Your task to perform on an android device: Open the calendar and show me this week's events? Image 0: 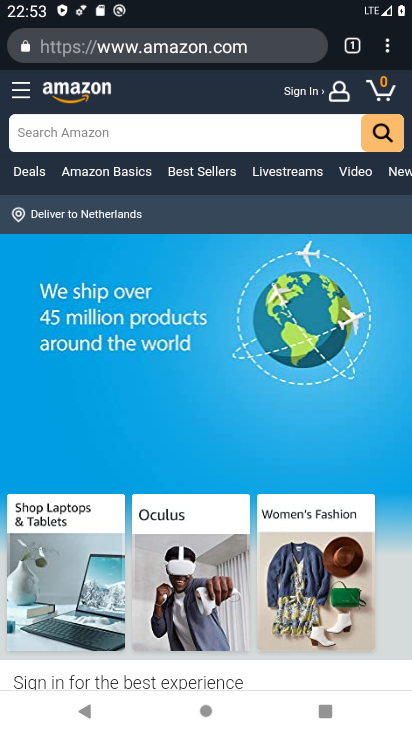
Step 0: press home button
Your task to perform on an android device: Open the calendar and show me this week's events? Image 1: 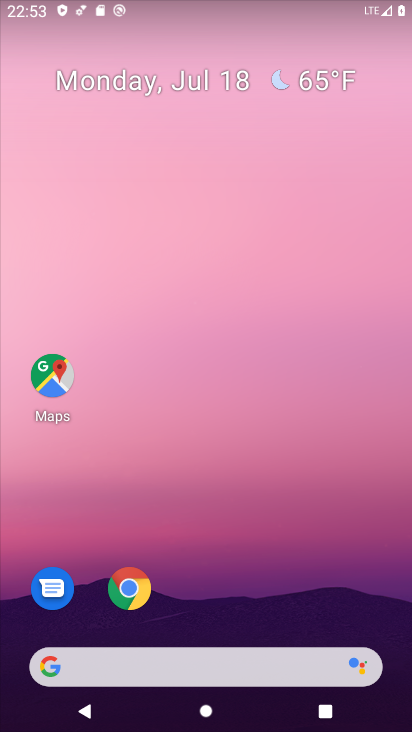
Step 1: drag from (267, 589) to (274, 29)
Your task to perform on an android device: Open the calendar and show me this week's events? Image 2: 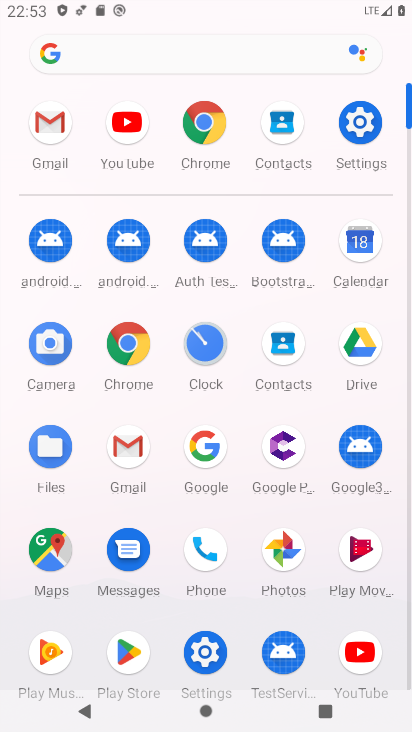
Step 2: click (354, 250)
Your task to perform on an android device: Open the calendar and show me this week's events? Image 3: 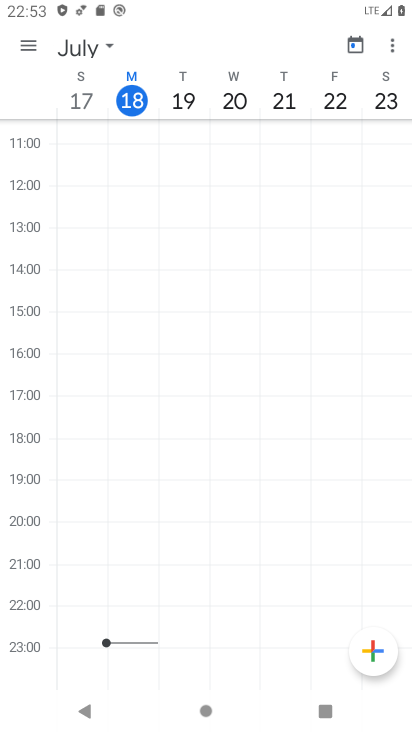
Step 3: task complete